Your task to perform on an android device: Open Chrome and go to settings Image 0: 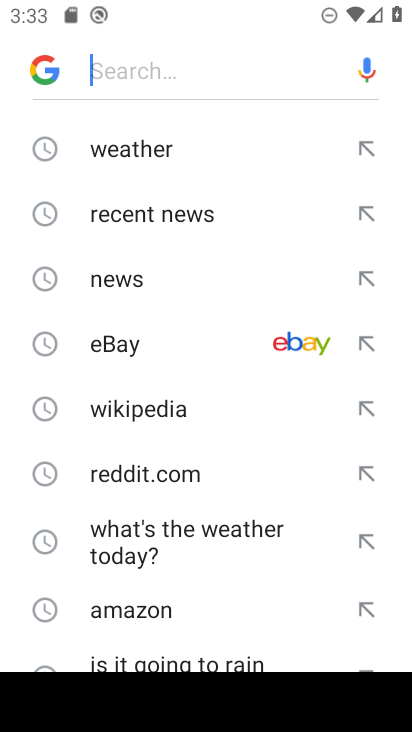
Step 0: press home button
Your task to perform on an android device: Open Chrome and go to settings Image 1: 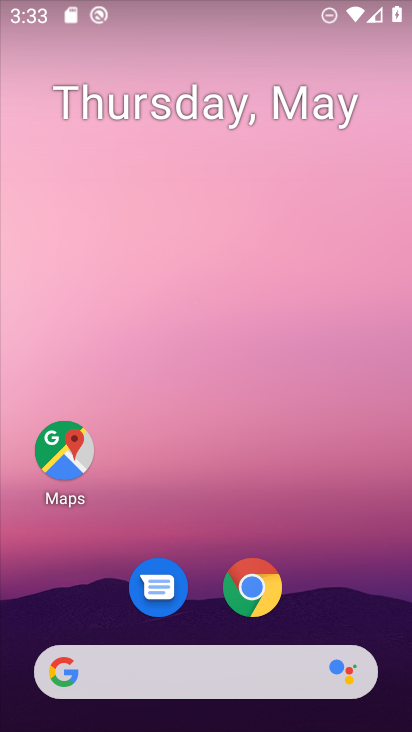
Step 1: drag from (354, 601) to (328, 218)
Your task to perform on an android device: Open Chrome and go to settings Image 2: 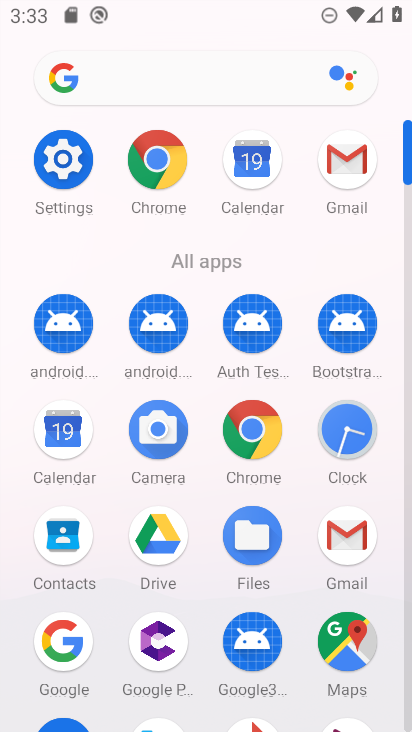
Step 2: click (271, 433)
Your task to perform on an android device: Open Chrome and go to settings Image 3: 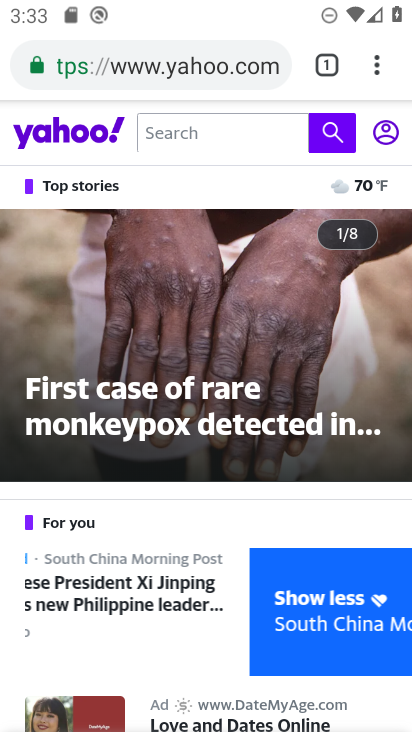
Step 3: click (376, 73)
Your task to perform on an android device: Open Chrome and go to settings Image 4: 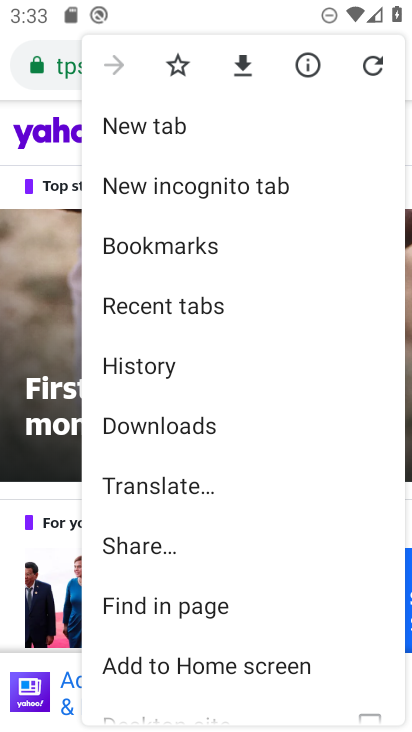
Step 4: drag from (341, 512) to (350, 405)
Your task to perform on an android device: Open Chrome and go to settings Image 5: 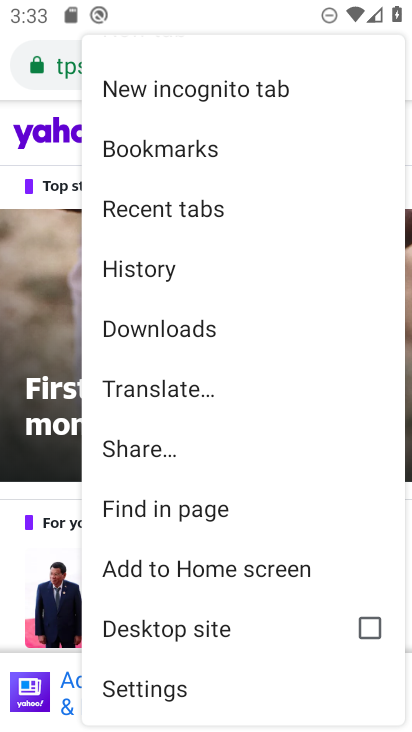
Step 5: drag from (313, 609) to (330, 441)
Your task to perform on an android device: Open Chrome and go to settings Image 6: 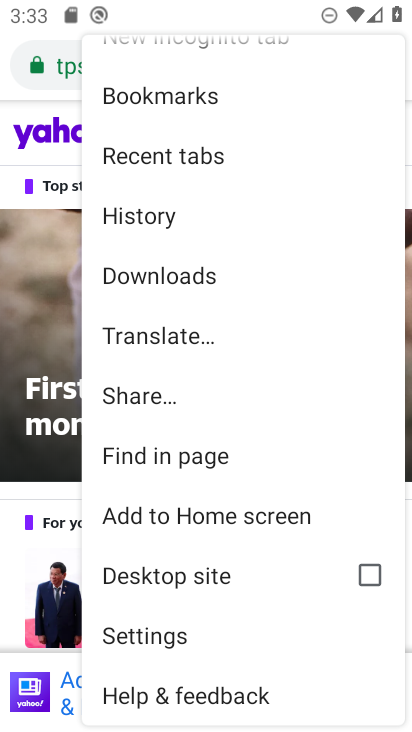
Step 6: click (189, 643)
Your task to perform on an android device: Open Chrome and go to settings Image 7: 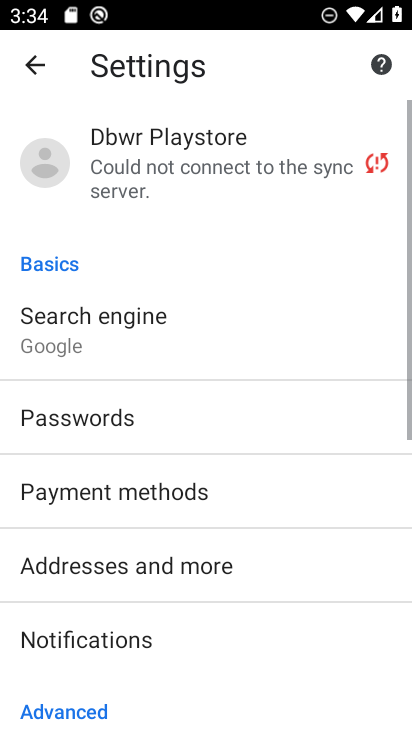
Step 7: task complete